Your task to perform on an android device: Search for pizza restaurants on Maps Image 0: 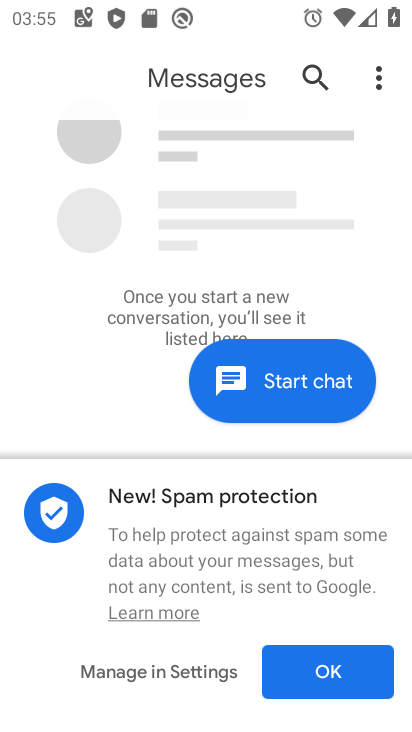
Step 0: press home button
Your task to perform on an android device: Search for pizza restaurants on Maps Image 1: 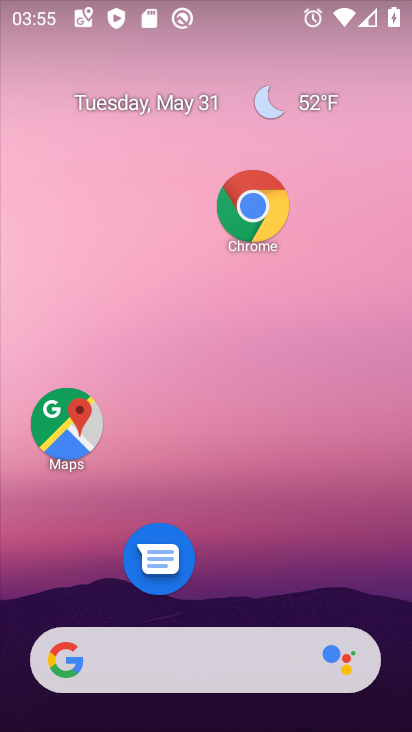
Step 1: click (69, 442)
Your task to perform on an android device: Search for pizza restaurants on Maps Image 2: 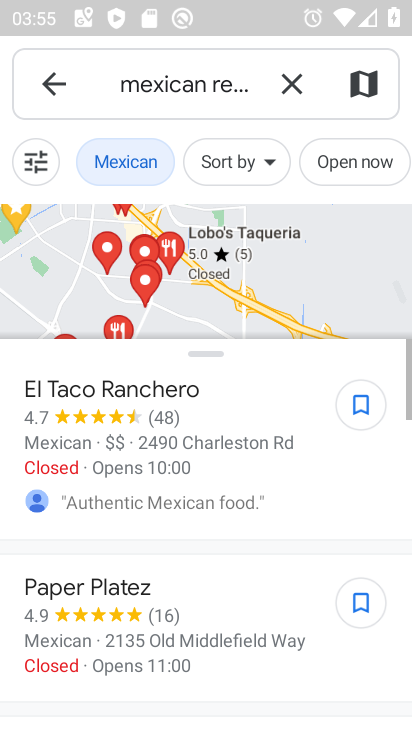
Step 2: click (277, 88)
Your task to perform on an android device: Search for pizza restaurants on Maps Image 3: 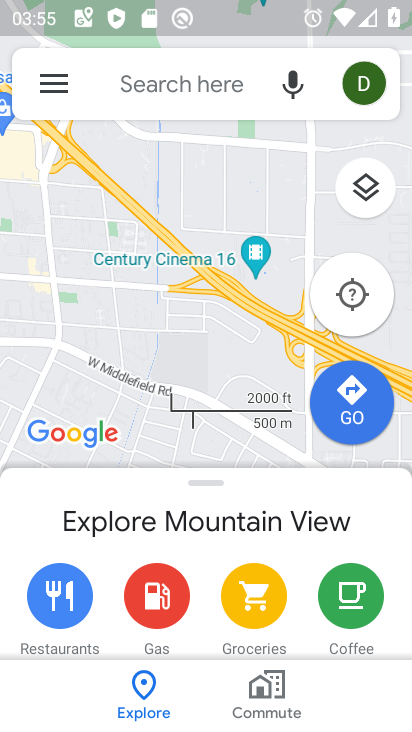
Step 3: click (198, 79)
Your task to perform on an android device: Search for pizza restaurants on Maps Image 4: 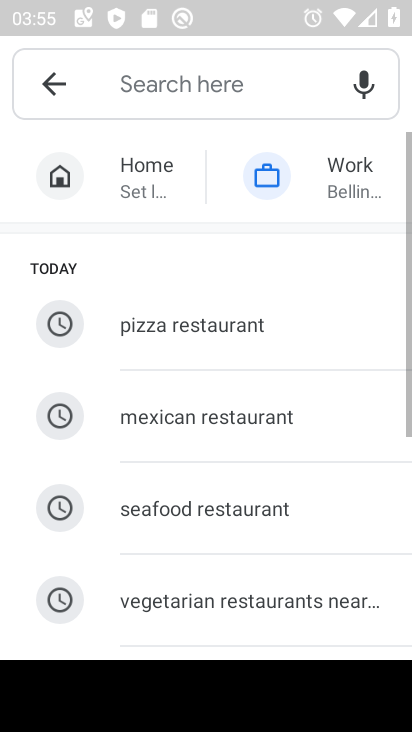
Step 4: click (183, 346)
Your task to perform on an android device: Search for pizza restaurants on Maps Image 5: 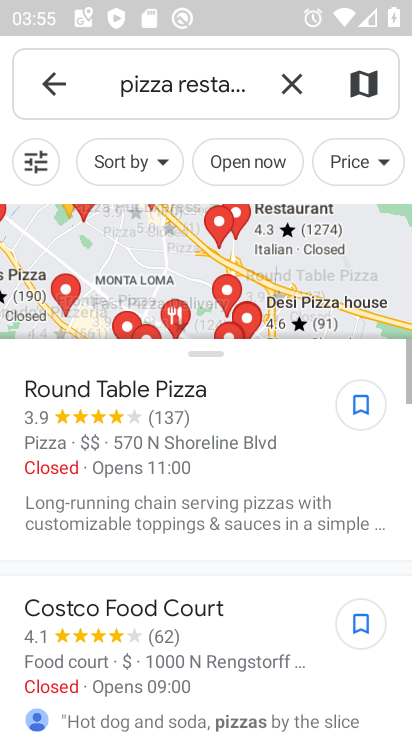
Step 5: task complete